Your task to perform on an android device: Check the weather Image 0: 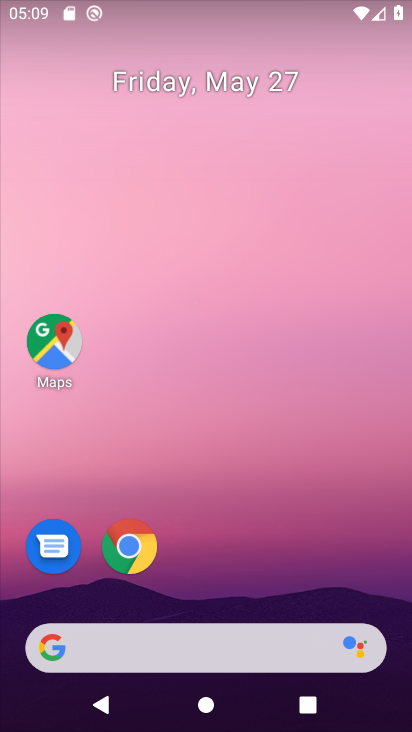
Step 0: drag from (266, 556) to (179, 5)
Your task to perform on an android device: Check the weather Image 1: 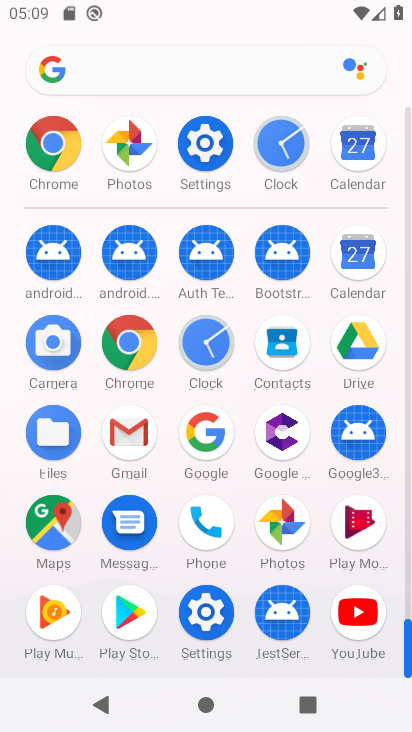
Step 1: drag from (9, 560) to (13, 285)
Your task to perform on an android device: Check the weather Image 2: 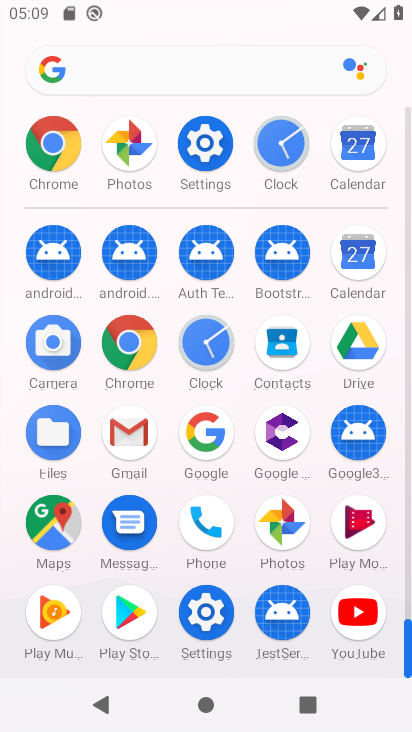
Step 2: drag from (9, 530) to (29, 220)
Your task to perform on an android device: Check the weather Image 3: 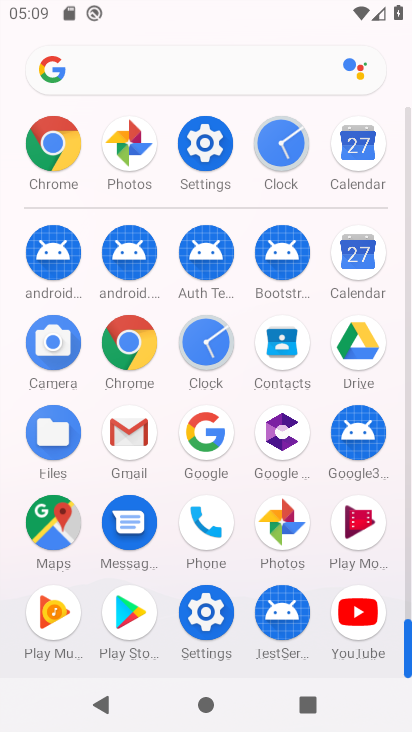
Step 3: click (126, 339)
Your task to perform on an android device: Check the weather Image 4: 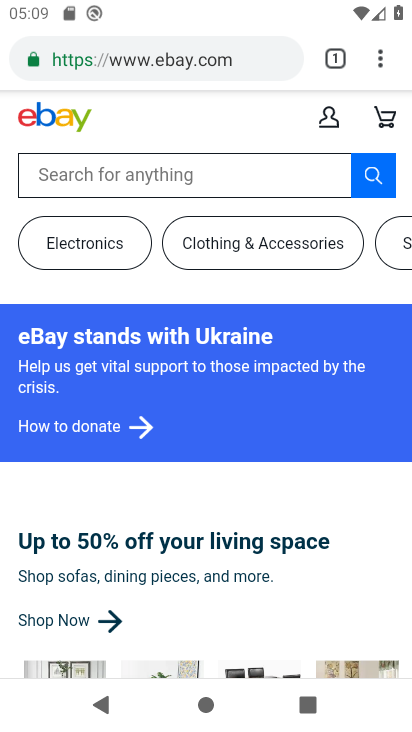
Step 4: click (179, 65)
Your task to perform on an android device: Check the weather Image 5: 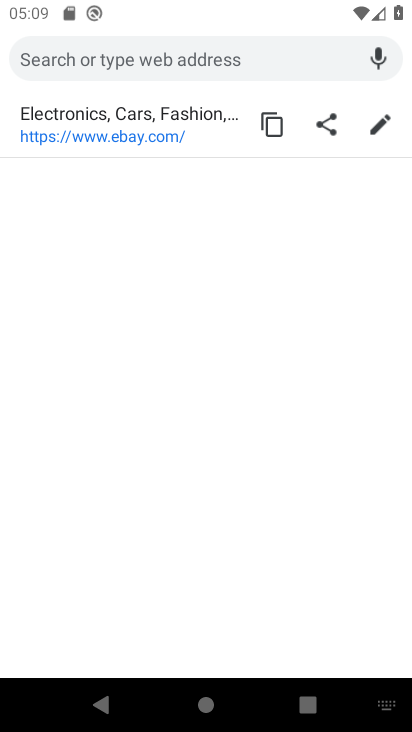
Step 5: type "Check the weather"
Your task to perform on an android device: Check the weather Image 6: 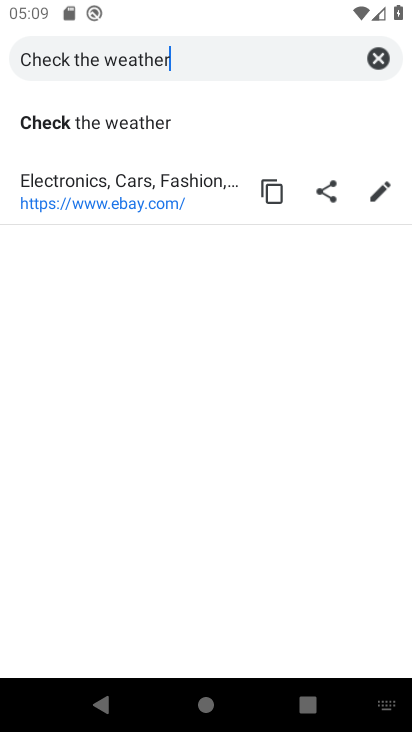
Step 6: type ""
Your task to perform on an android device: Check the weather Image 7: 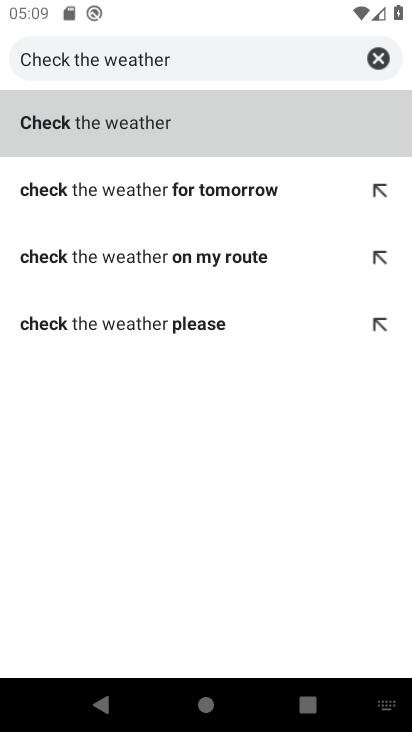
Step 7: click (139, 137)
Your task to perform on an android device: Check the weather Image 8: 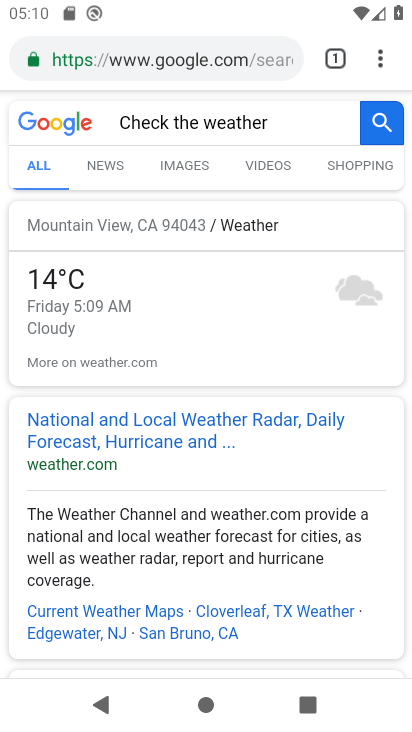
Step 8: task complete